Your task to perform on an android device: turn on improve location accuracy Image 0: 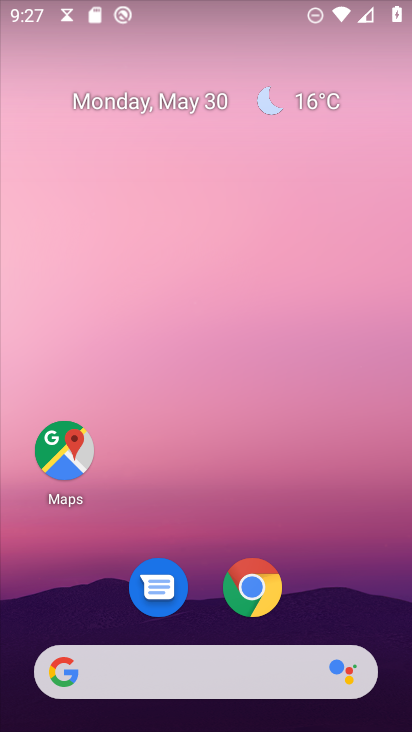
Step 0: drag from (140, 682) to (321, 47)
Your task to perform on an android device: turn on improve location accuracy Image 1: 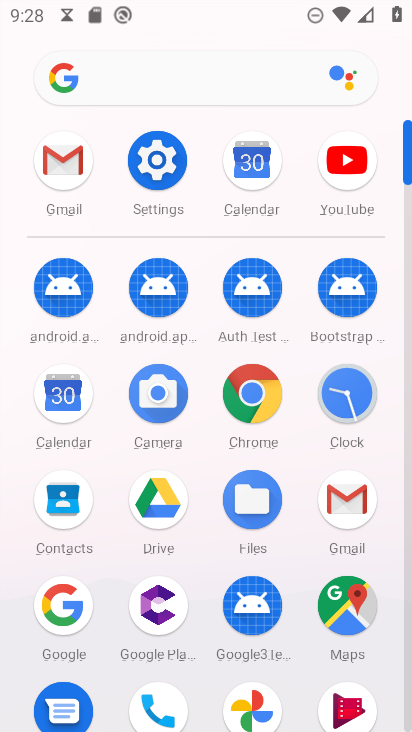
Step 1: click (162, 158)
Your task to perform on an android device: turn on improve location accuracy Image 2: 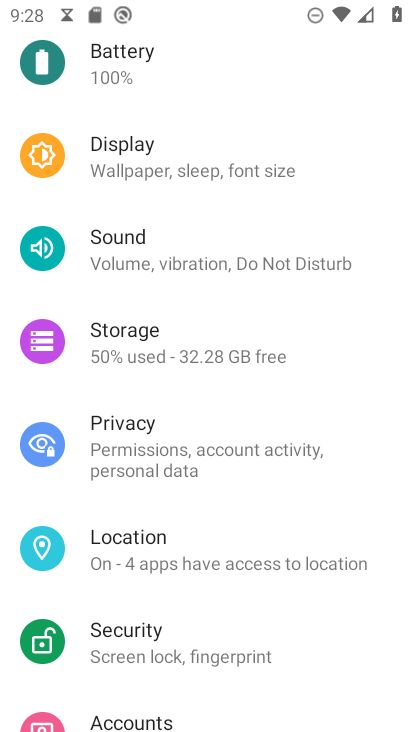
Step 2: click (177, 556)
Your task to perform on an android device: turn on improve location accuracy Image 3: 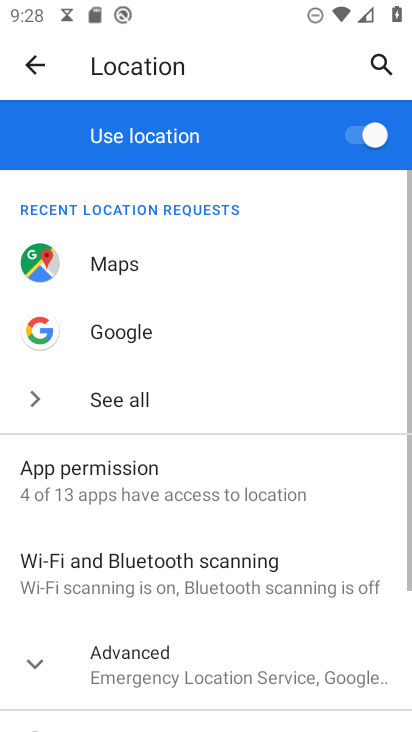
Step 3: click (164, 669)
Your task to perform on an android device: turn on improve location accuracy Image 4: 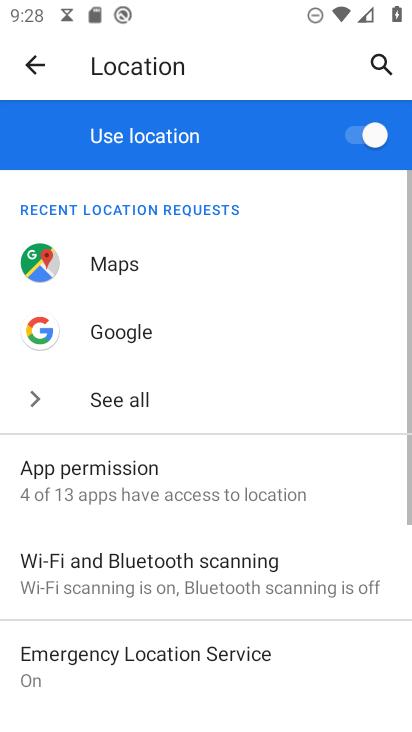
Step 4: drag from (189, 638) to (314, 228)
Your task to perform on an android device: turn on improve location accuracy Image 5: 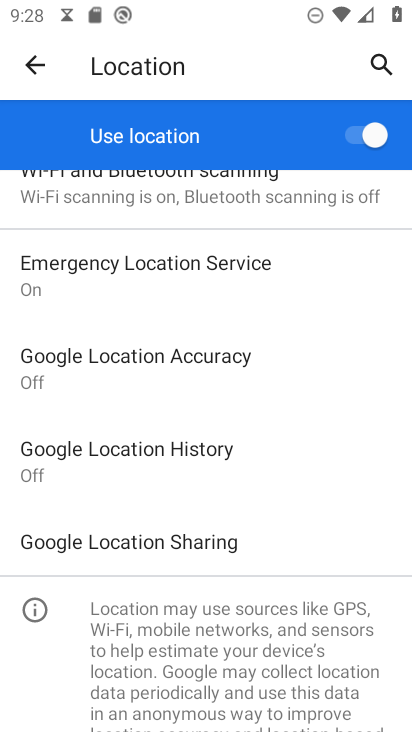
Step 5: click (123, 366)
Your task to perform on an android device: turn on improve location accuracy Image 6: 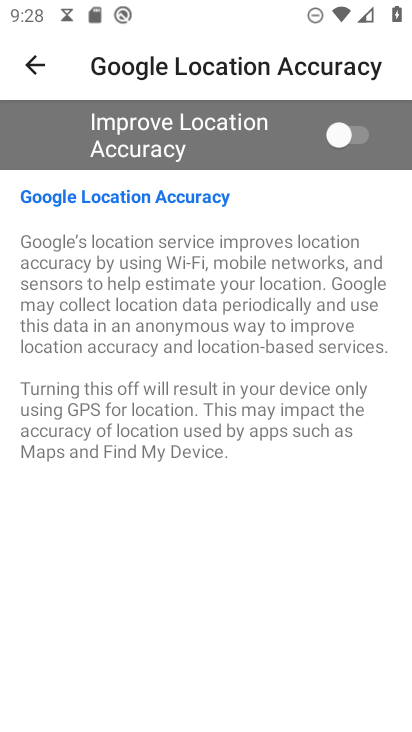
Step 6: click (351, 132)
Your task to perform on an android device: turn on improve location accuracy Image 7: 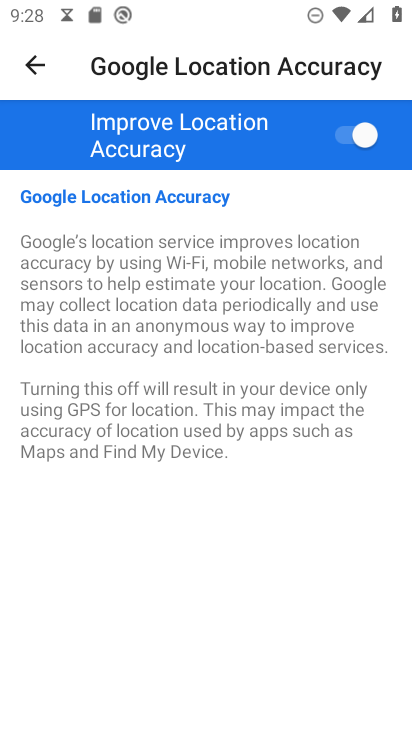
Step 7: task complete